Your task to perform on an android device: add a contact in the contacts app Image 0: 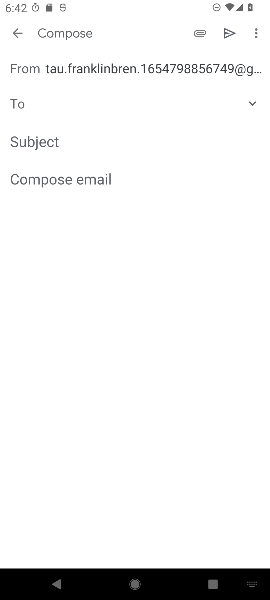
Step 0: press home button
Your task to perform on an android device: add a contact in the contacts app Image 1: 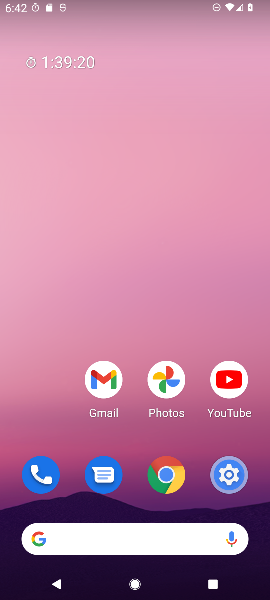
Step 1: drag from (54, 422) to (60, 178)
Your task to perform on an android device: add a contact in the contacts app Image 2: 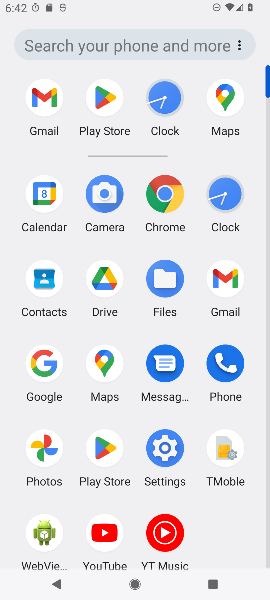
Step 2: click (54, 291)
Your task to perform on an android device: add a contact in the contacts app Image 3: 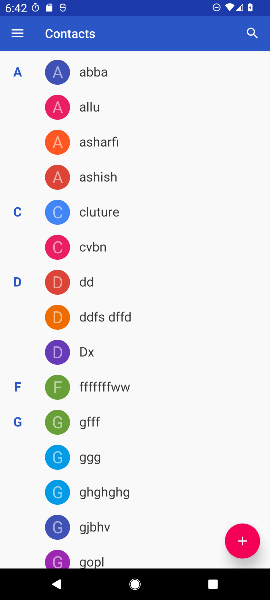
Step 3: click (242, 541)
Your task to perform on an android device: add a contact in the contacts app Image 4: 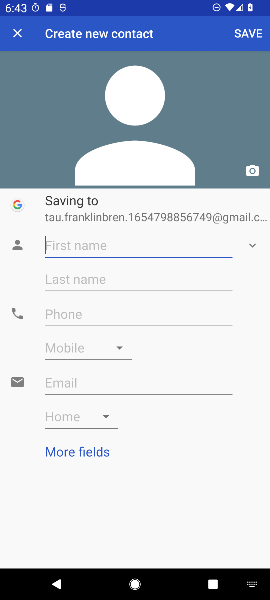
Step 4: click (154, 240)
Your task to perform on an android device: add a contact in the contacts app Image 5: 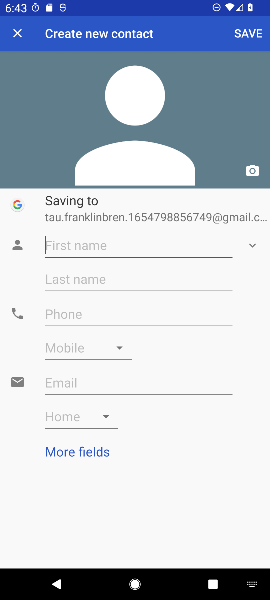
Step 5: type "lolol"
Your task to perform on an android device: add a contact in the contacts app Image 6: 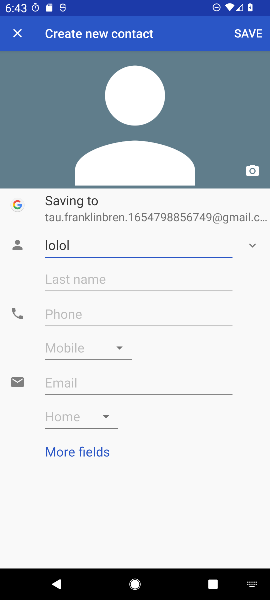
Step 6: click (209, 315)
Your task to perform on an android device: add a contact in the contacts app Image 7: 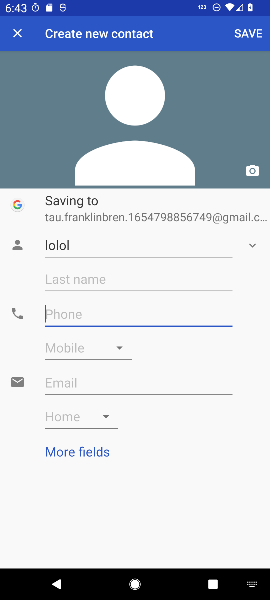
Step 7: type "1234567890"
Your task to perform on an android device: add a contact in the contacts app Image 8: 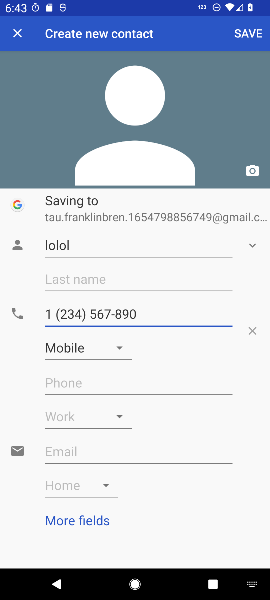
Step 8: click (252, 27)
Your task to perform on an android device: add a contact in the contacts app Image 9: 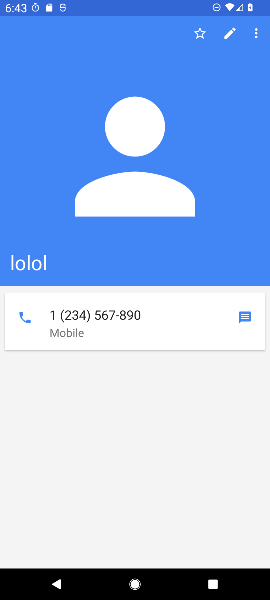
Step 9: task complete